Your task to perform on an android device: change the clock display to show seconds Image 0: 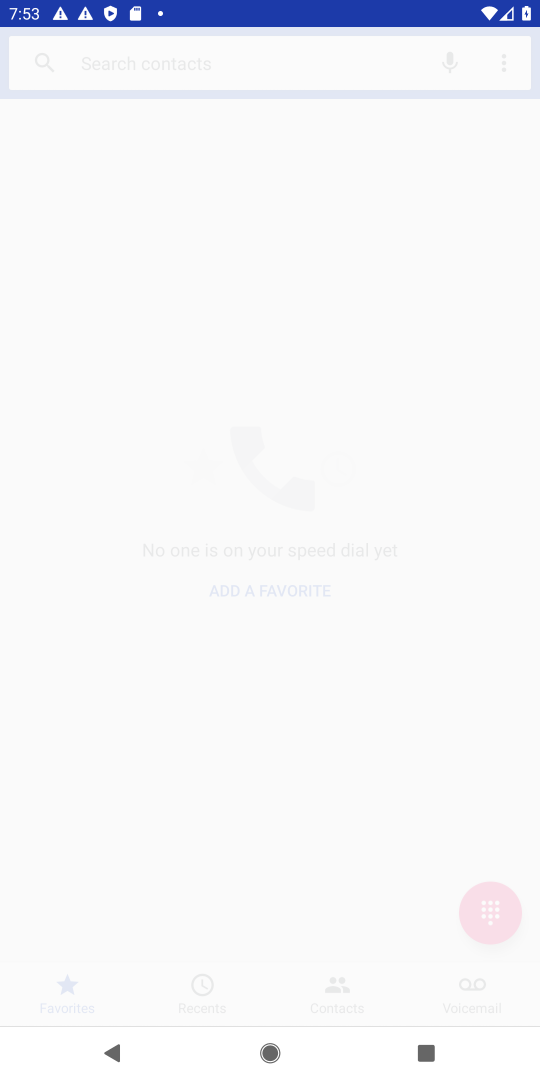
Step 0: press home button
Your task to perform on an android device: change the clock display to show seconds Image 1: 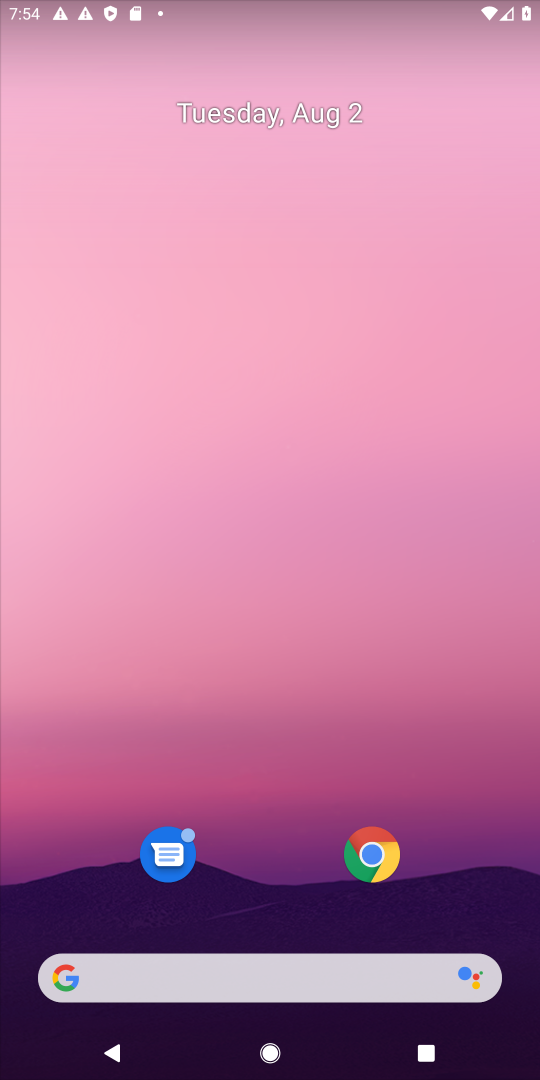
Step 1: drag from (454, 897) to (474, 226)
Your task to perform on an android device: change the clock display to show seconds Image 2: 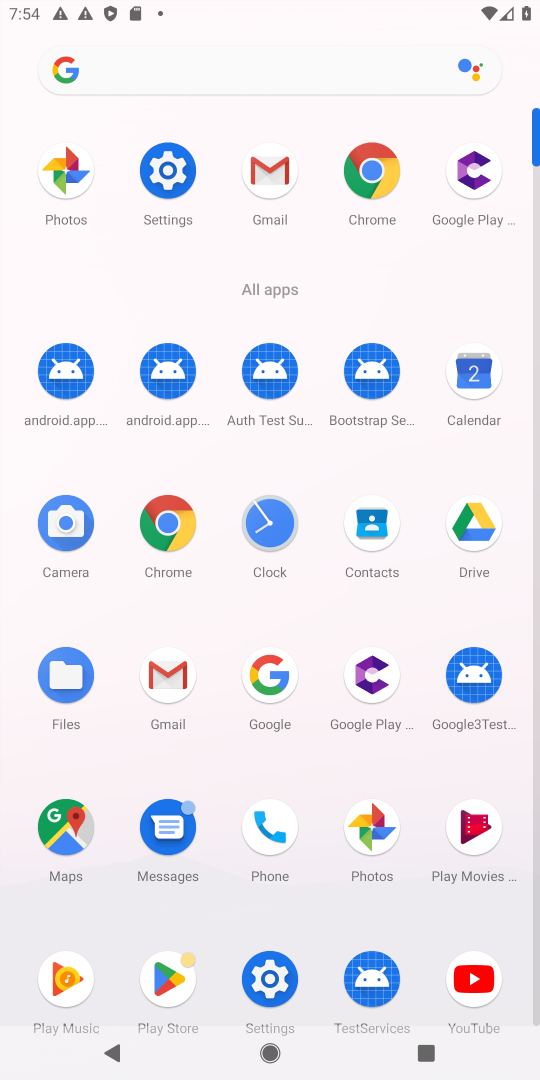
Step 2: click (267, 528)
Your task to perform on an android device: change the clock display to show seconds Image 3: 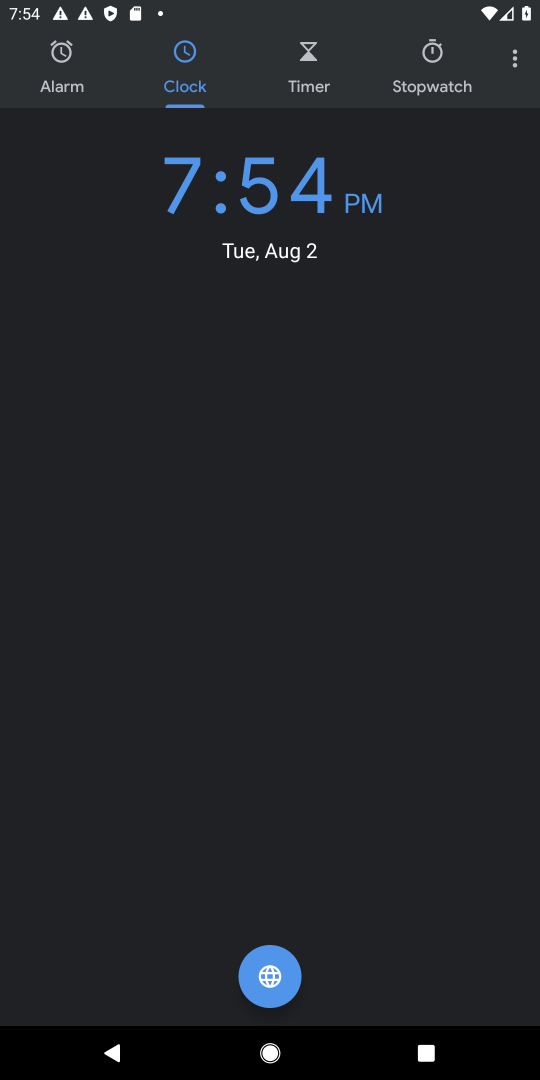
Step 3: click (518, 59)
Your task to perform on an android device: change the clock display to show seconds Image 4: 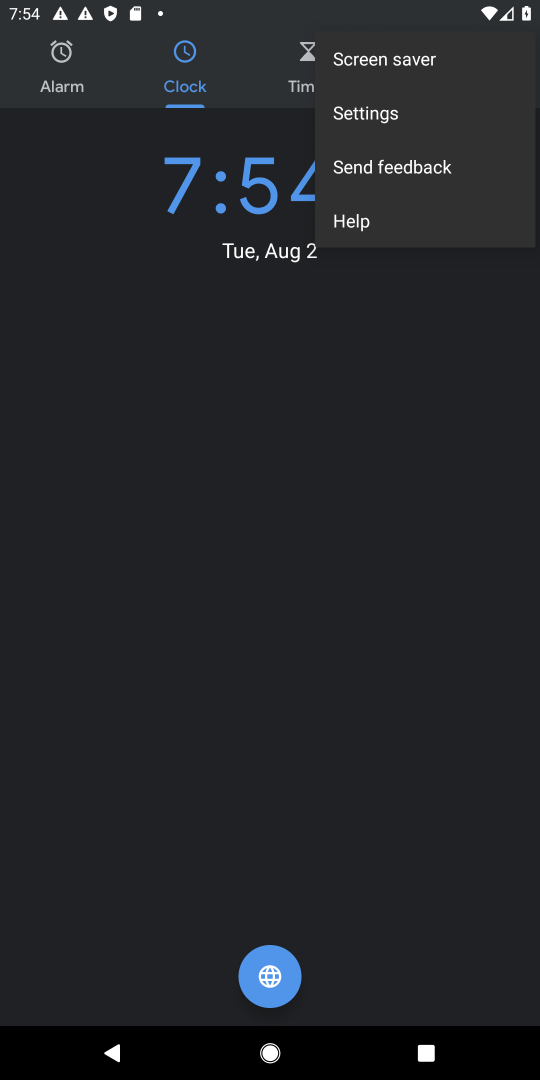
Step 4: click (432, 119)
Your task to perform on an android device: change the clock display to show seconds Image 5: 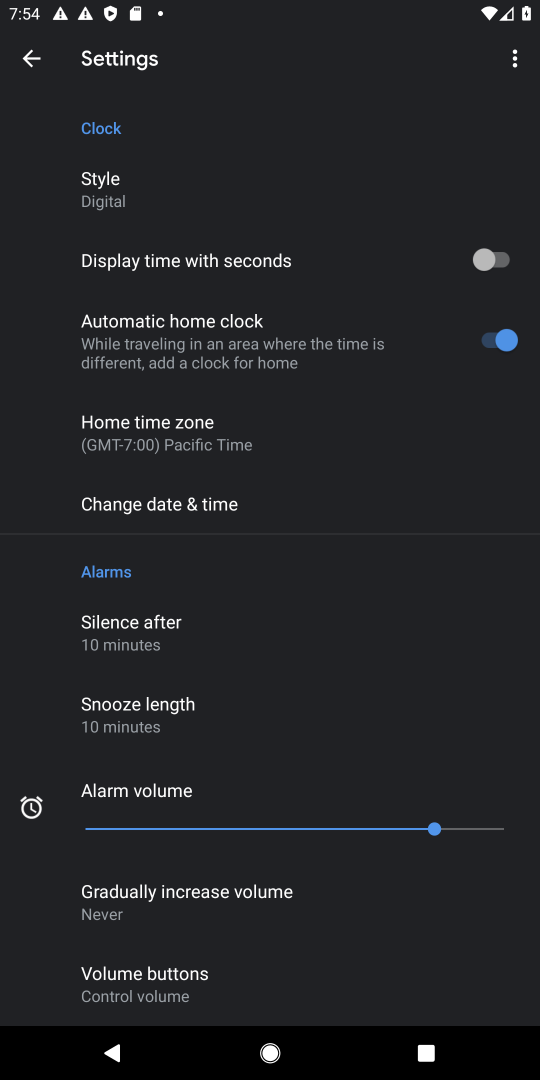
Step 5: drag from (382, 586) to (378, 408)
Your task to perform on an android device: change the clock display to show seconds Image 6: 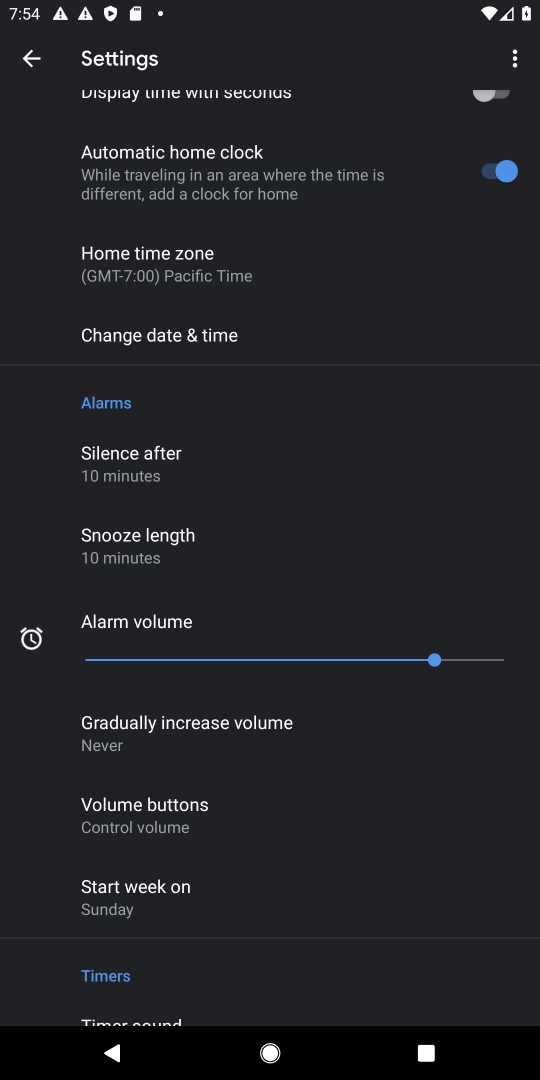
Step 6: drag from (371, 755) to (371, 475)
Your task to perform on an android device: change the clock display to show seconds Image 7: 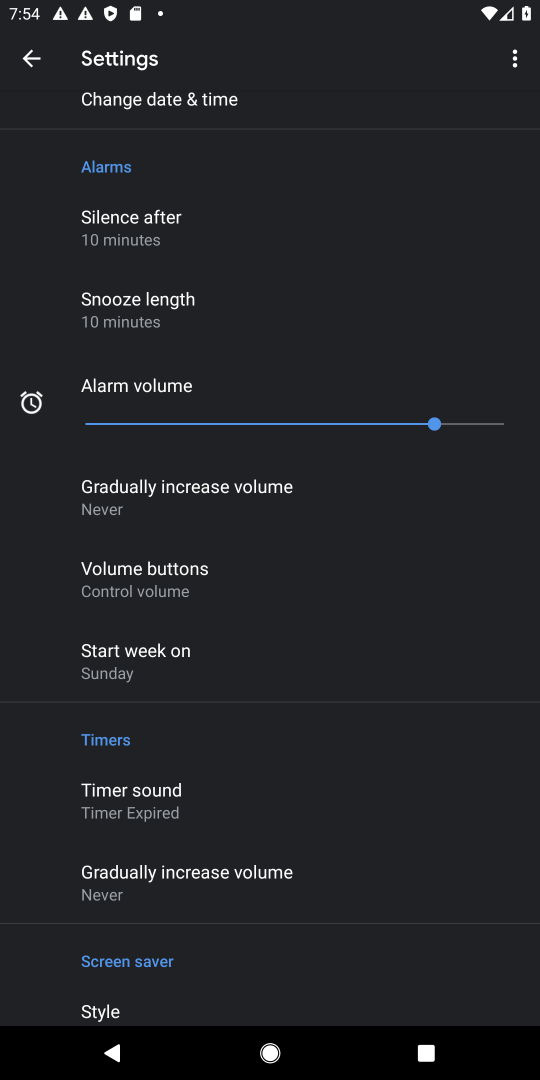
Step 7: drag from (400, 729) to (397, 474)
Your task to perform on an android device: change the clock display to show seconds Image 8: 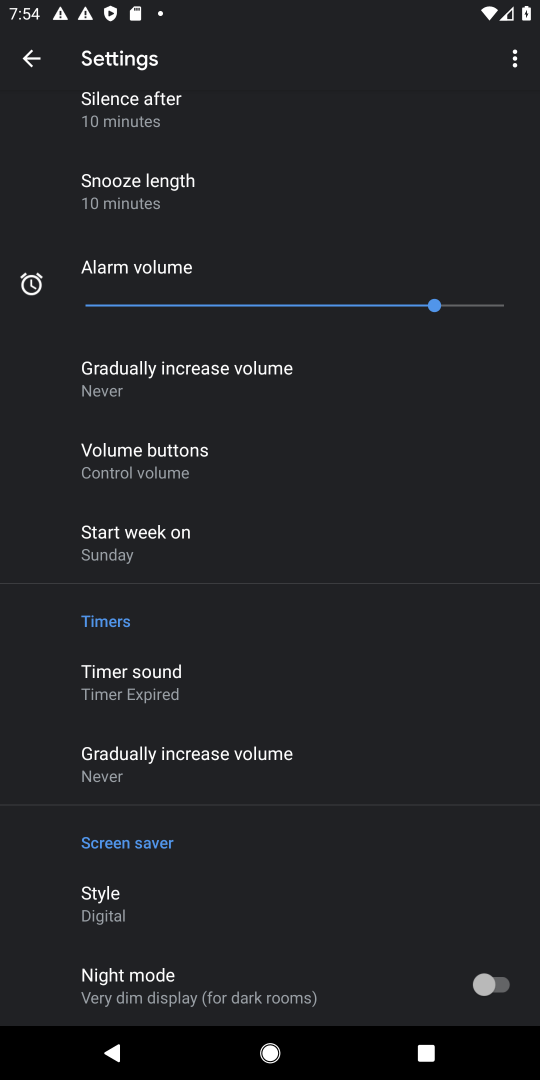
Step 8: drag from (394, 793) to (398, 637)
Your task to perform on an android device: change the clock display to show seconds Image 9: 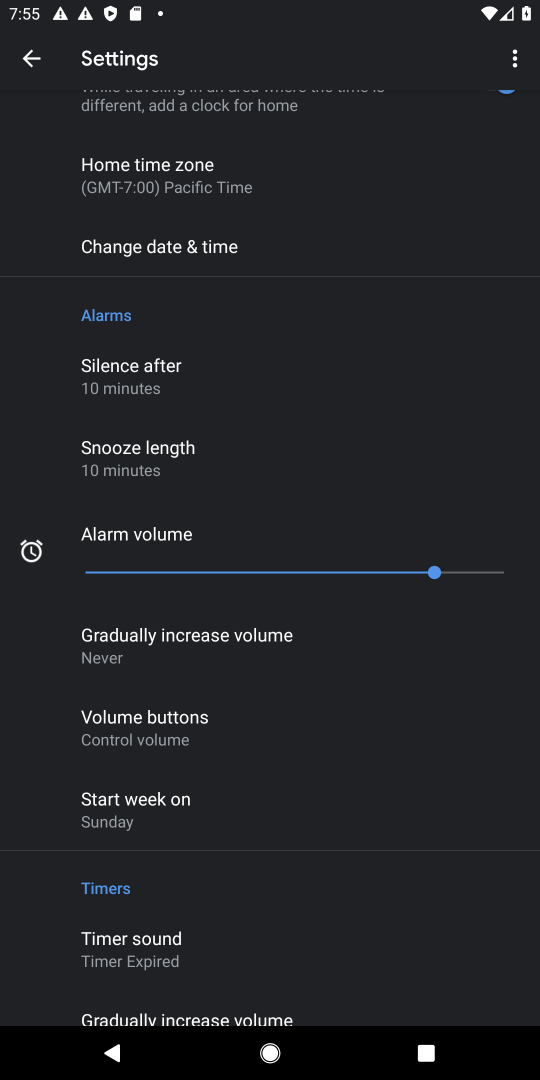
Step 9: drag from (355, 304) to (366, 694)
Your task to perform on an android device: change the clock display to show seconds Image 10: 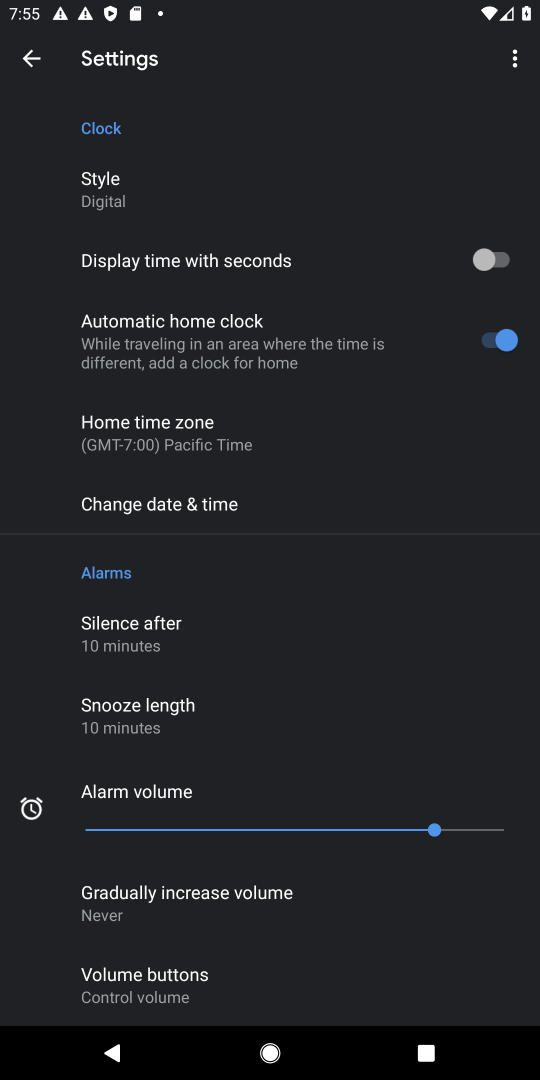
Step 10: click (500, 263)
Your task to perform on an android device: change the clock display to show seconds Image 11: 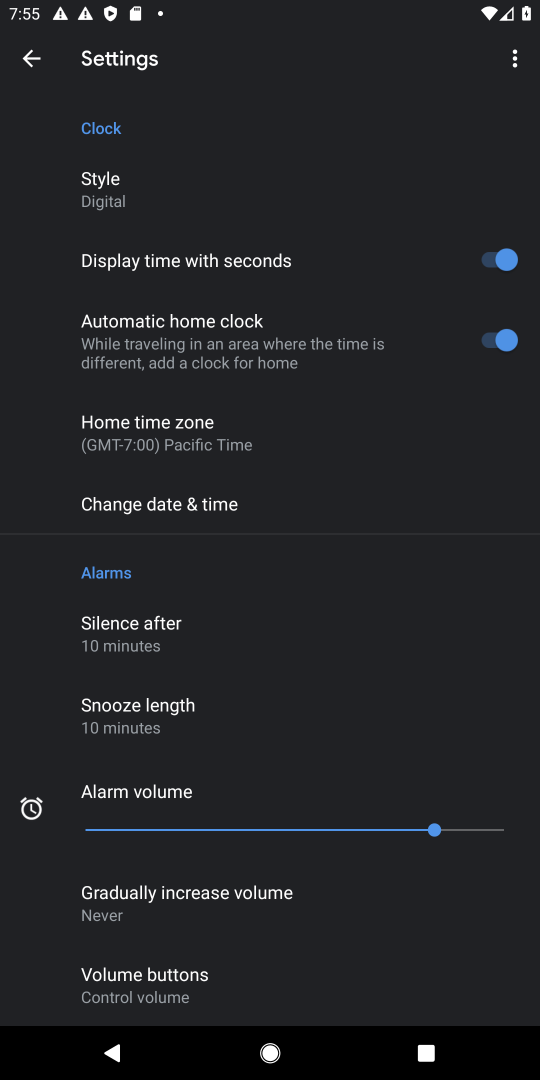
Step 11: task complete